Your task to perform on an android device: Show me productivity apps on the Play Store Image 0: 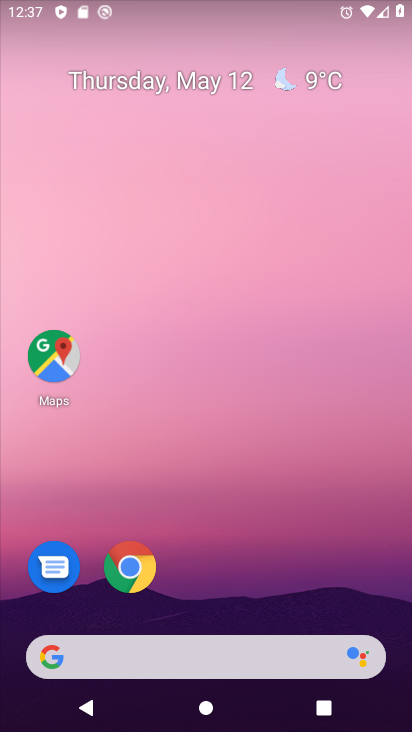
Step 0: drag from (174, 622) to (272, 90)
Your task to perform on an android device: Show me productivity apps on the Play Store Image 1: 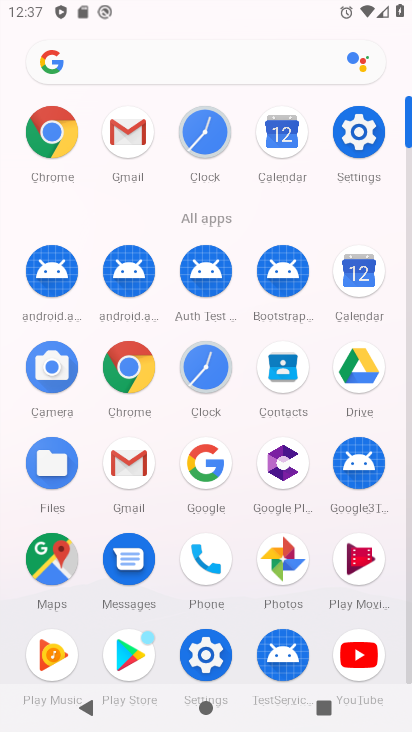
Step 1: click (132, 662)
Your task to perform on an android device: Show me productivity apps on the Play Store Image 2: 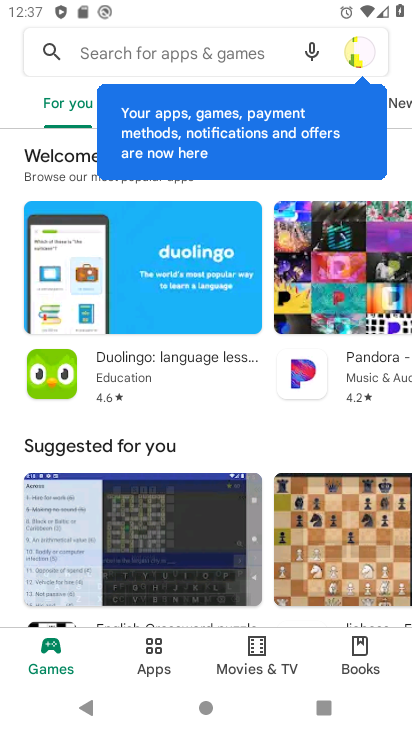
Step 2: drag from (403, 100) to (9, 98)
Your task to perform on an android device: Show me productivity apps on the Play Store Image 3: 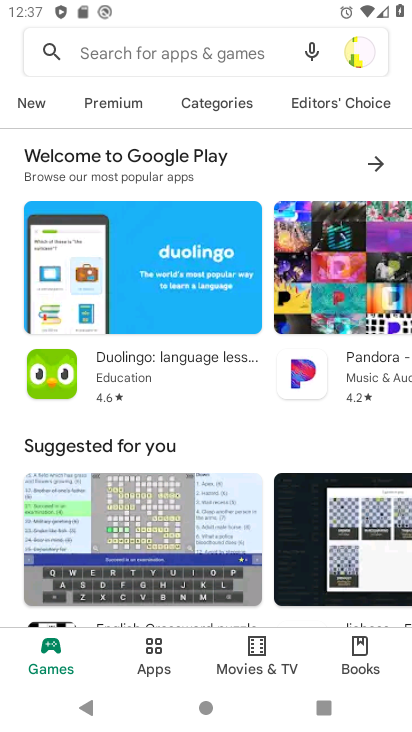
Step 3: drag from (342, 104) to (44, 94)
Your task to perform on an android device: Show me productivity apps on the Play Store Image 4: 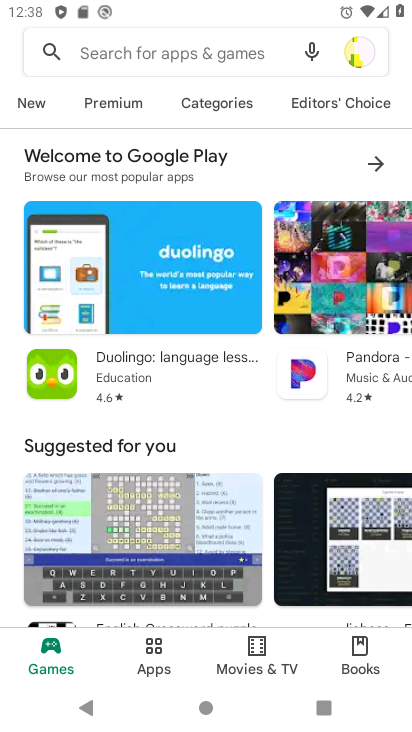
Step 4: drag from (385, 109) to (99, 102)
Your task to perform on an android device: Show me productivity apps on the Play Store Image 5: 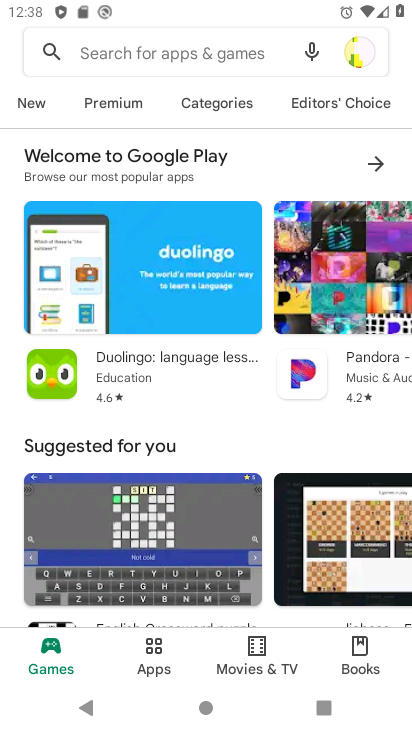
Step 5: click (163, 658)
Your task to perform on an android device: Show me productivity apps on the Play Store Image 6: 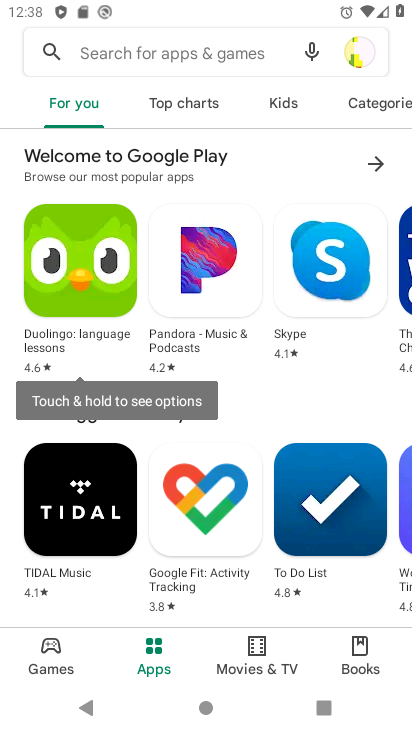
Step 6: drag from (404, 107) to (136, 100)
Your task to perform on an android device: Show me productivity apps on the Play Store Image 7: 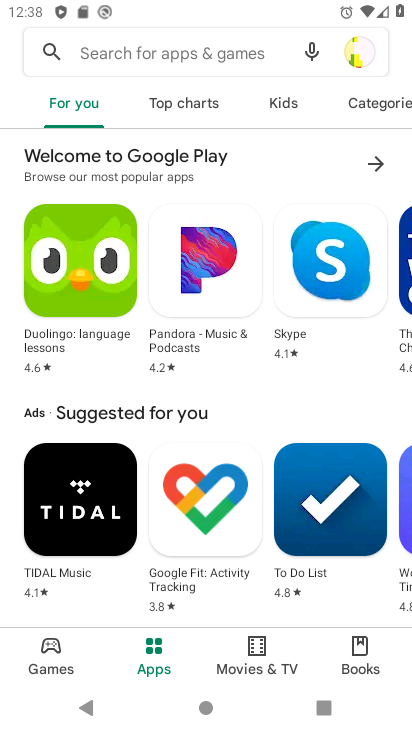
Step 7: click (390, 100)
Your task to perform on an android device: Show me productivity apps on the Play Store Image 8: 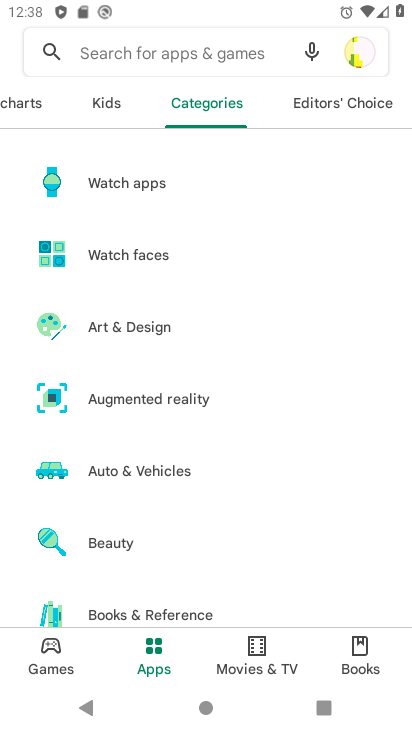
Step 8: drag from (208, 573) to (256, 182)
Your task to perform on an android device: Show me productivity apps on the Play Store Image 9: 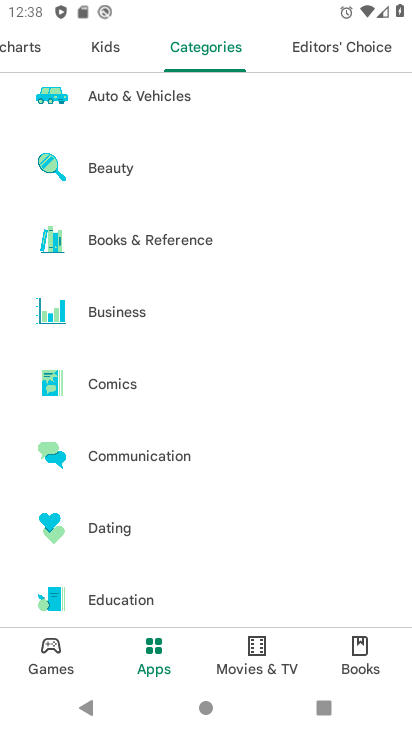
Step 9: drag from (193, 546) to (282, 141)
Your task to perform on an android device: Show me productivity apps on the Play Store Image 10: 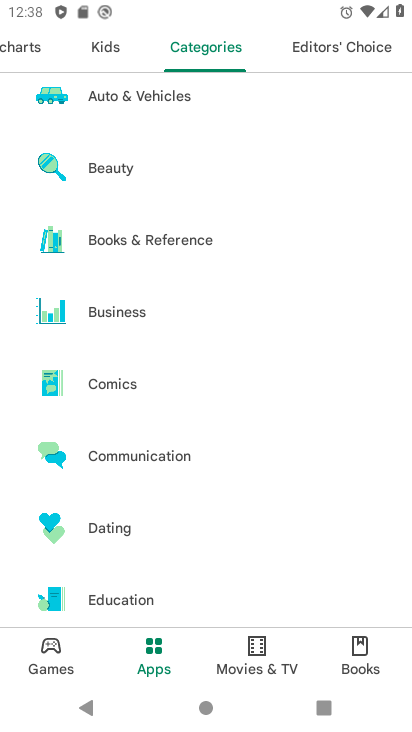
Step 10: drag from (234, 593) to (335, 95)
Your task to perform on an android device: Show me productivity apps on the Play Store Image 11: 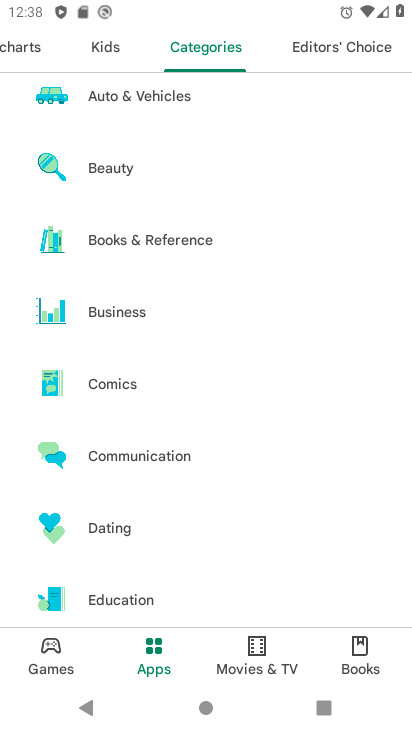
Step 11: drag from (132, 538) to (246, 198)
Your task to perform on an android device: Show me productivity apps on the Play Store Image 12: 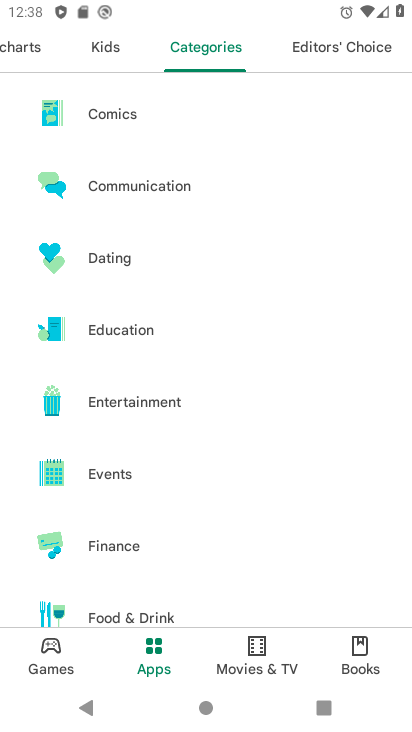
Step 12: drag from (166, 571) to (267, 174)
Your task to perform on an android device: Show me productivity apps on the Play Store Image 13: 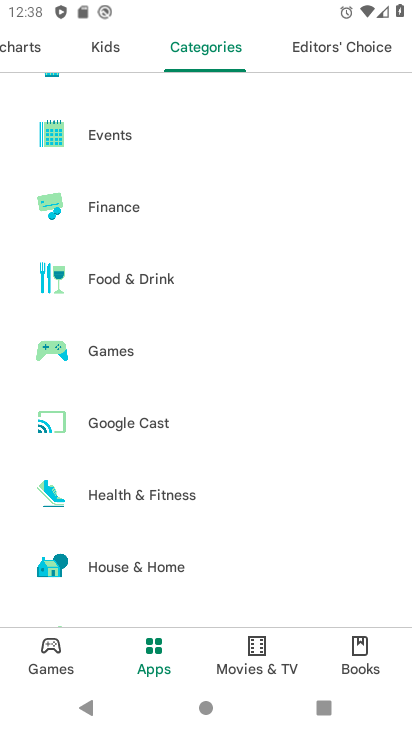
Step 13: drag from (193, 563) to (284, 147)
Your task to perform on an android device: Show me productivity apps on the Play Store Image 14: 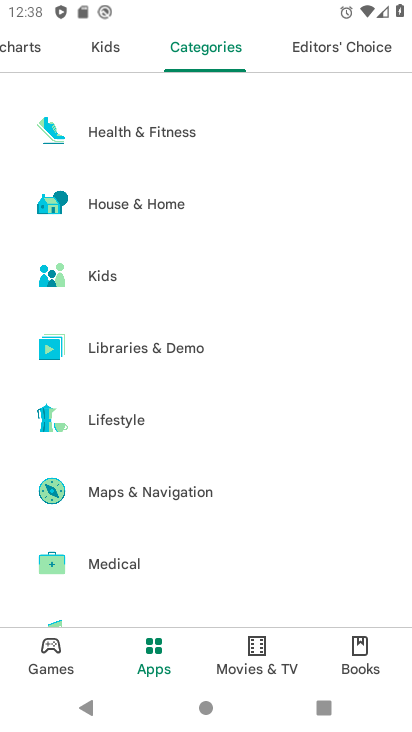
Step 14: drag from (151, 613) to (276, 200)
Your task to perform on an android device: Show me productivity apps on the Play Store Image 15: 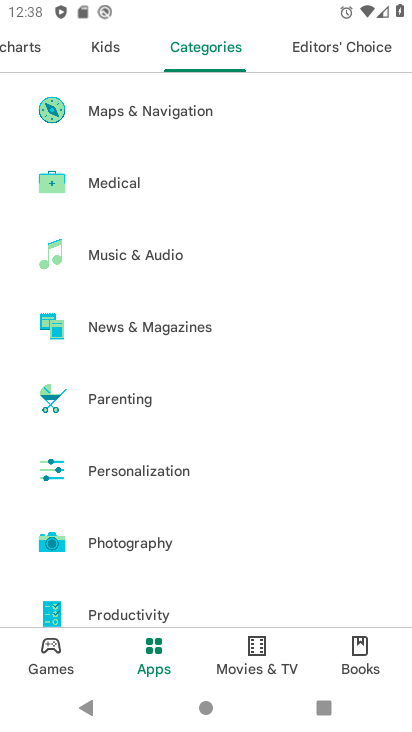
Step 15: click (170, 606)
Your task to perform on an android device: Show me productivity apps on the Play Store Image 16: 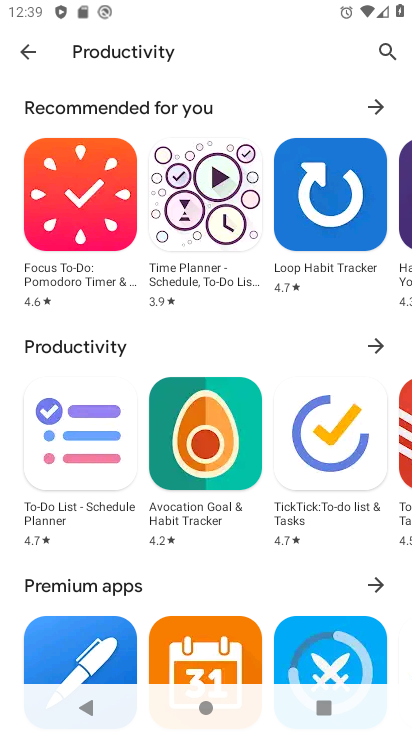
Step 16: task complete